Your task to perform on an android device: Do I have any events tomorrow? Image 0: 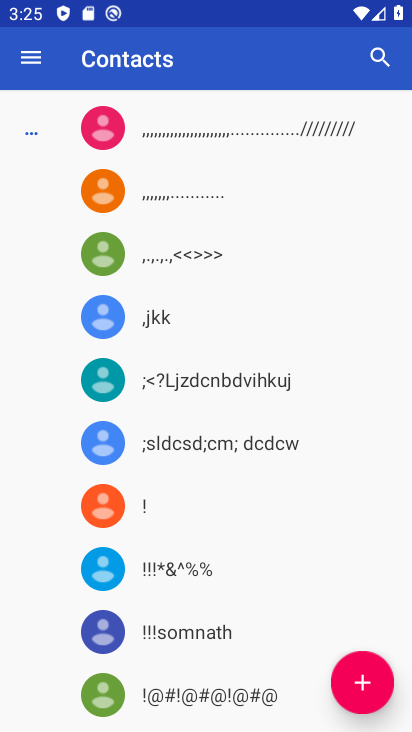
Step 0: press home button
Your task to perform on an android device: Do I have any events tomorrow? Image 1: 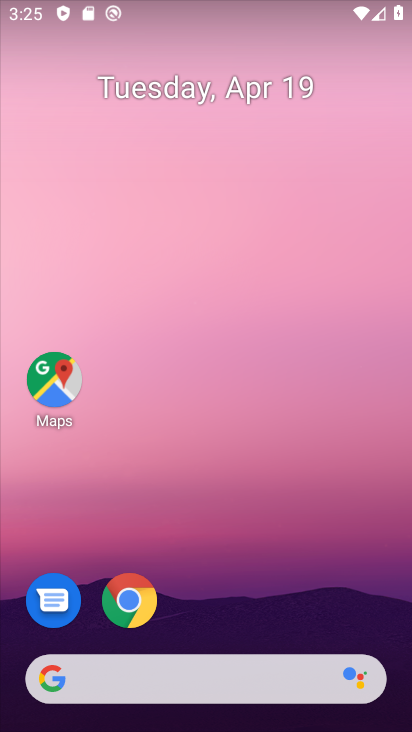
Step 1: drag from (177, 509) to (329, 31)
Your task to perform on an android device: Do I have any events tomorrow? Image 2: 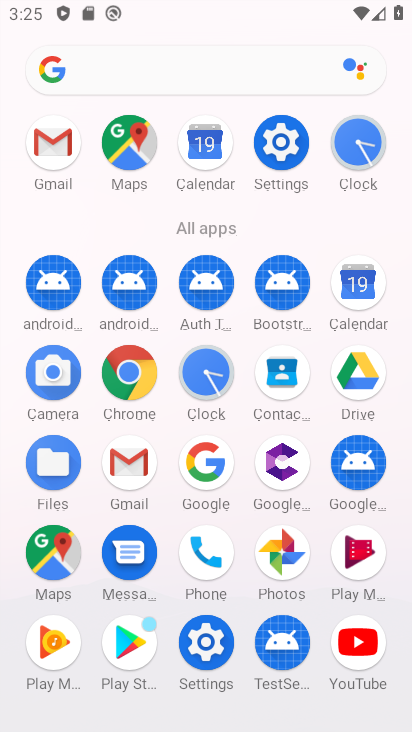
Step 2: click (372, 283)
Your task to perform on an android device: Do I have any events tomorrow? Image 3: 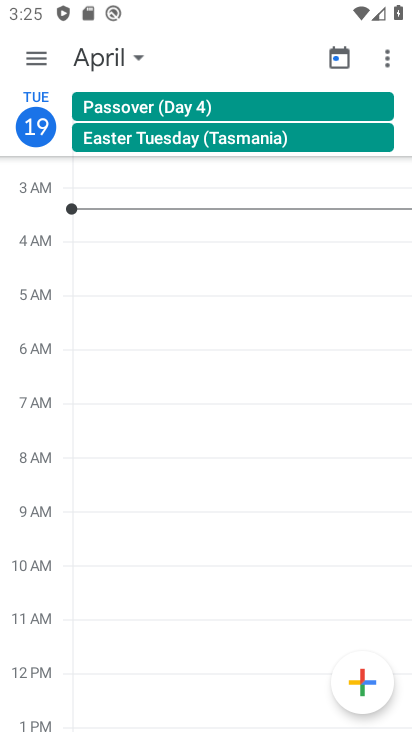
Step 3: click (30, 52)
Your task to perform on an android device: Do I have any events tomorrow? Image 4: 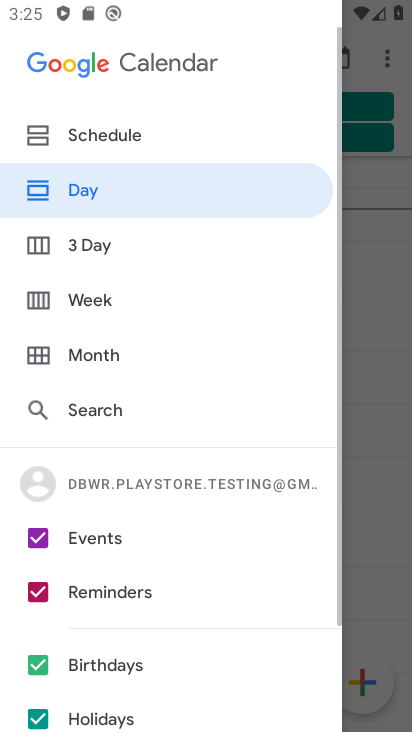
Step 4: click (52, 592)
Your task to perform on an android device: Do I have any events tomorrow? Image 5: 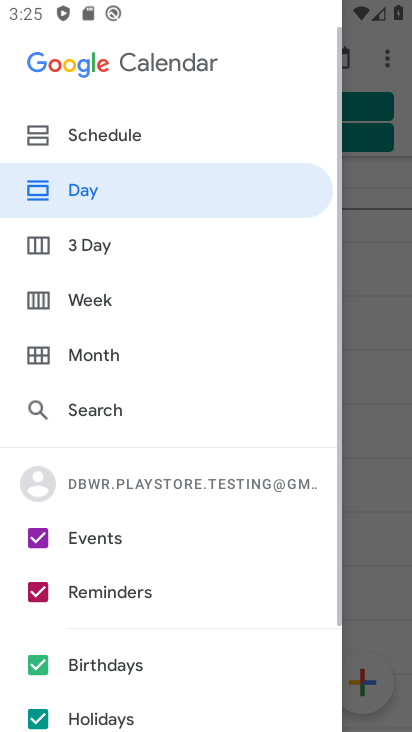
Step 5: drag from (155, 622) to (212, 163)
Your task to perform on an android device: Do I have any events tomorrow? Image 6: 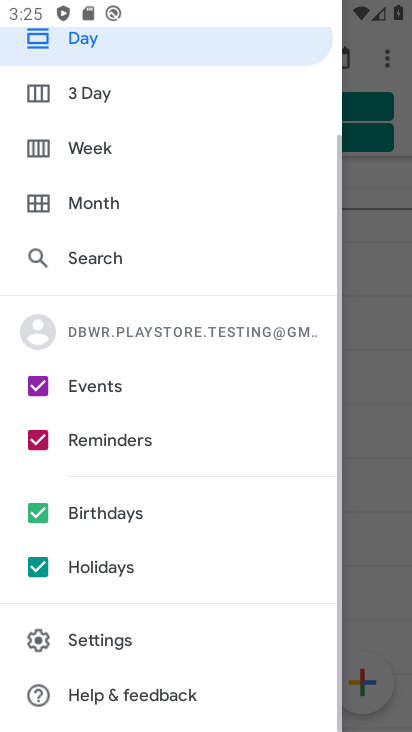
Step 6: click (38, 513)
Your task to perform on an android device: Do I have any events tomorrow? Image 7: 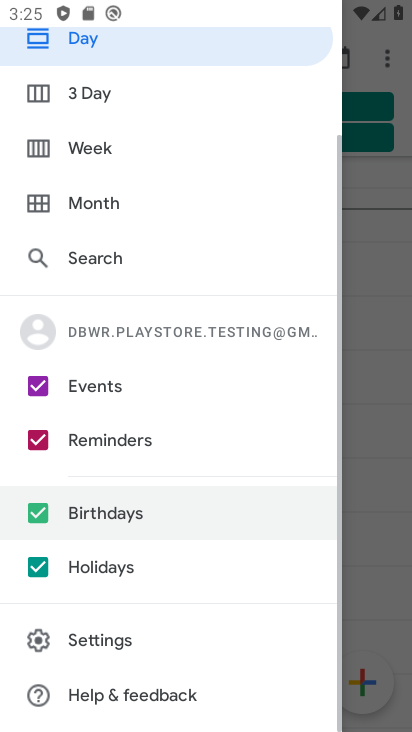
Step 7: click (34, 576)
Your task to perform on an android device: Do I have any events tomorrow? Image 8: 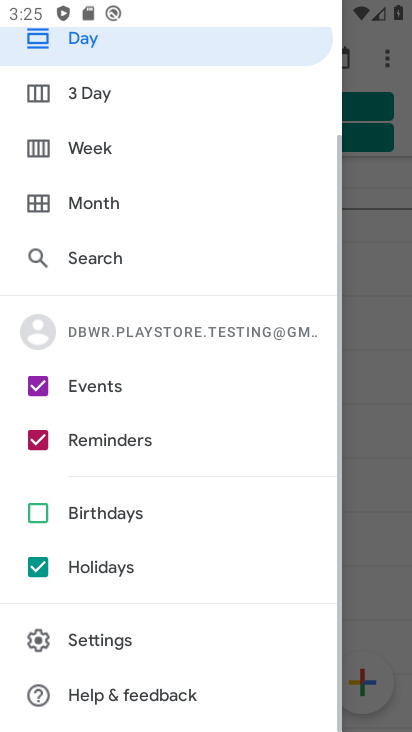
Step 8: click (34, 447)
Your task to perform on an android device: Do I have any events tomorrow? Image 9: 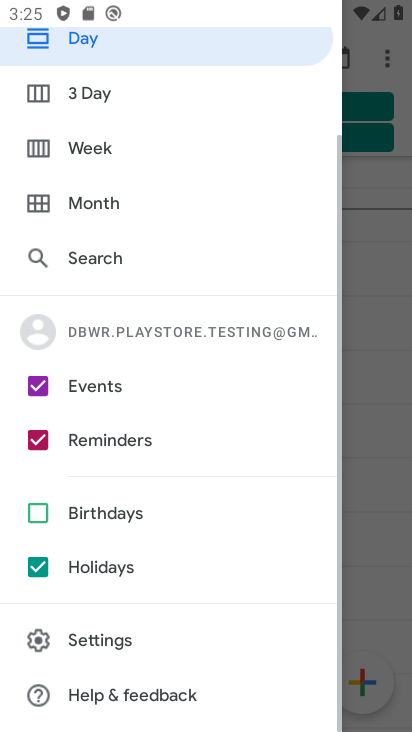
Step 9: click (40, 564)
Your task to perform on an android device: Do I have any events tomorrow? Image 10: 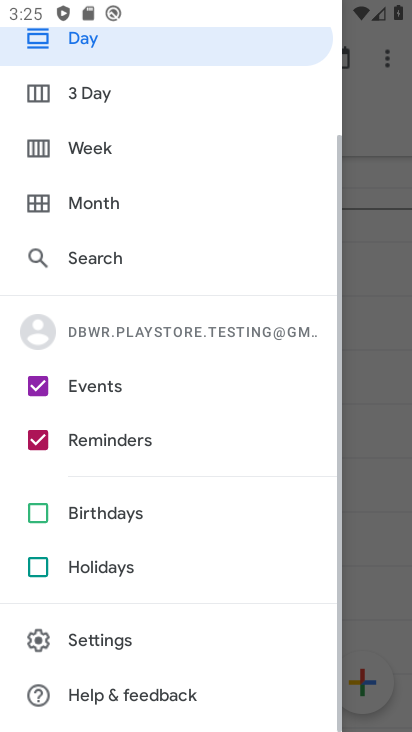
Step 10: click (43, 444)
Your task to perform on an android device: Do I have any events tomorrow? Image 11: 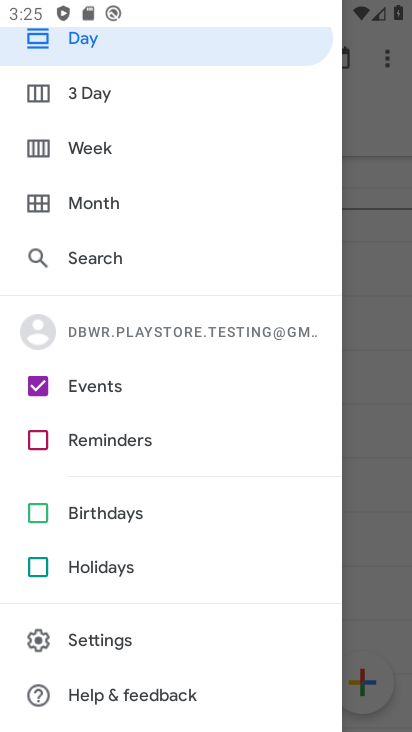
Step 11: click (368, 266)
Your task to perform on an android device: Do I have any events tomorrow? Image 12: 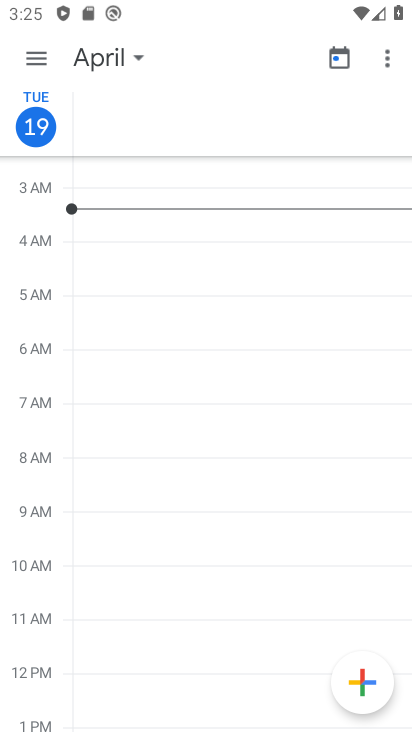
Step 12: click (42, 41)
Your task to perform on an android device: Do I have any events tomorrow? Image 13: 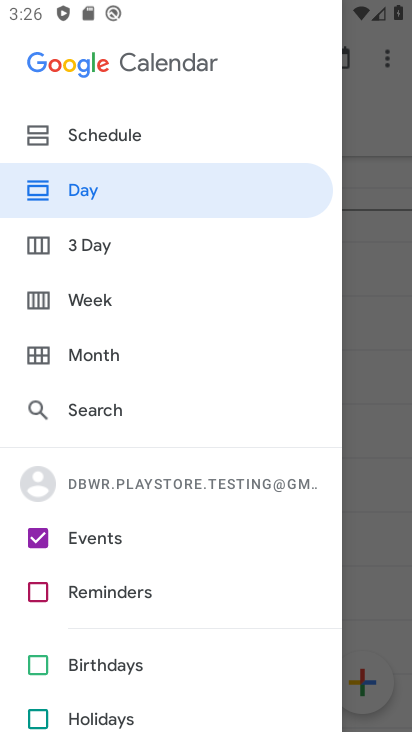
Step 13: click (116, 248)
Your task to perform on an android device: Do I have any events tomorrow? Image 14: 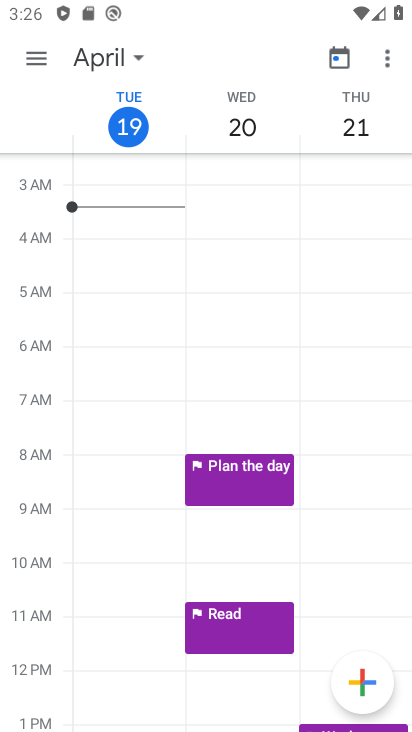
Step 14: task complete